Your task to perform on an android device: open a bookmark in the chrome app Image 0: 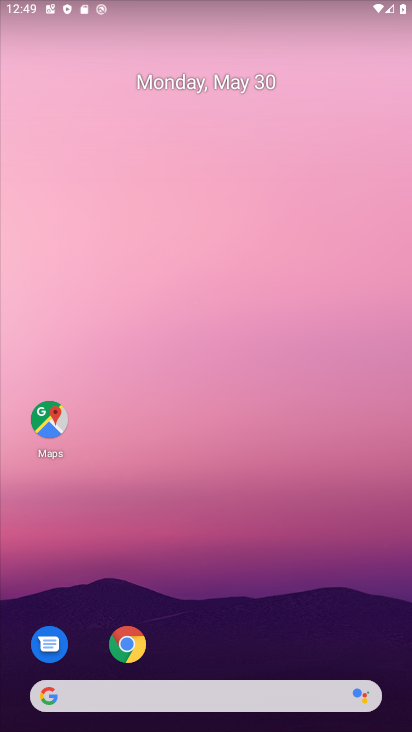
Step 0: drag from (260, 573) to (230, 262)
Your task to perform on an android device: open a bookmark in the chrome app Image 1: 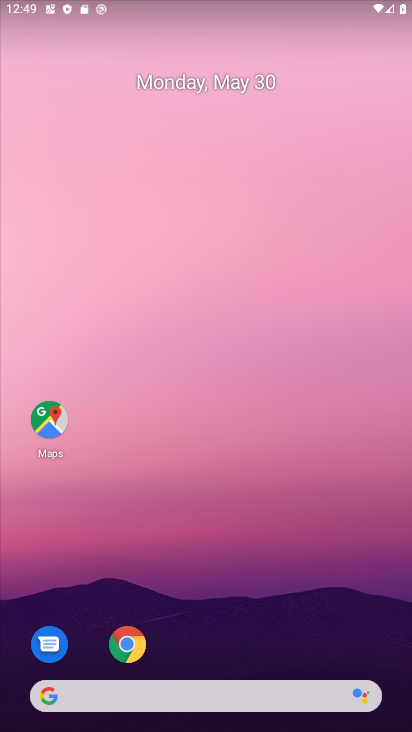
Step 1: drag from (273, 603) to (243, 240)
Your task to perform on an android device: open a bookmark in the chrome app Image 2: 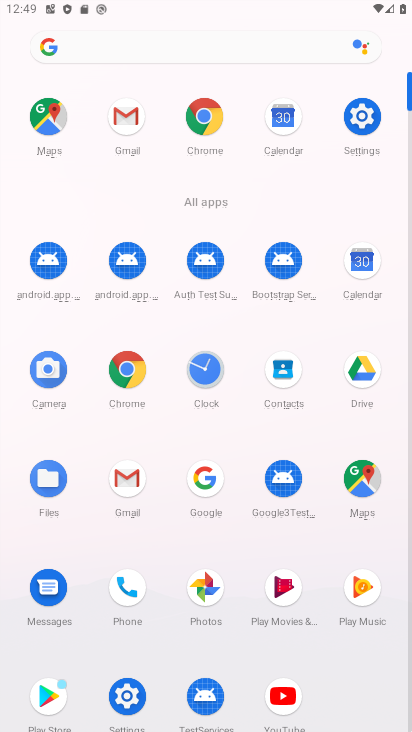
Step 2: click (202, 129)
Your task to perform on an android device: open a bookmark in the chrome app Image 3: 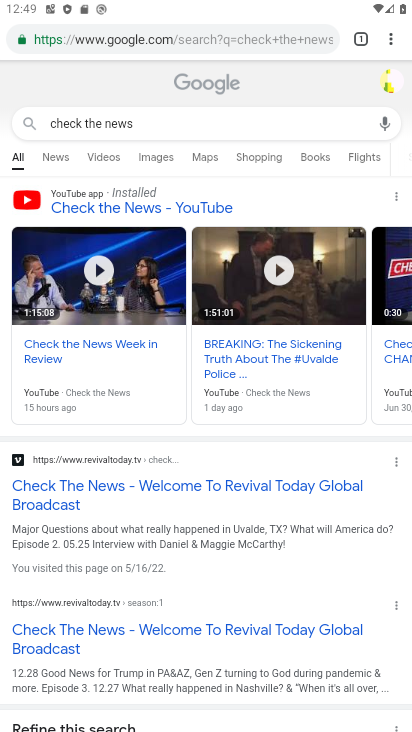
Step 3: click (398, 48)
Your task to perform on an android device: open a bookmark in the chrome app Image 4: 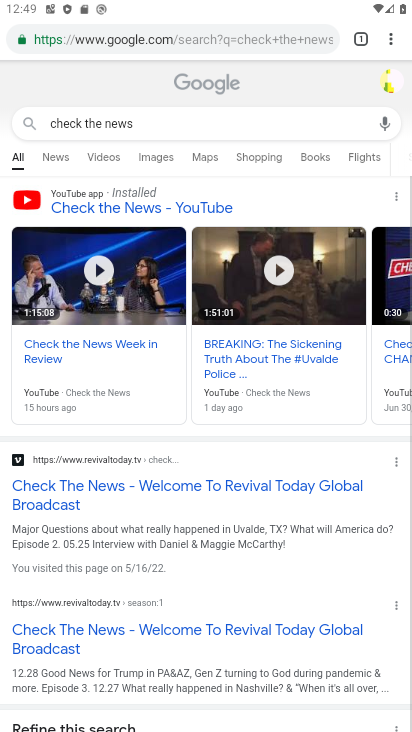
Step 4: task complete